Your task to perform on an android device: change the clock display to show seconds Image 0: 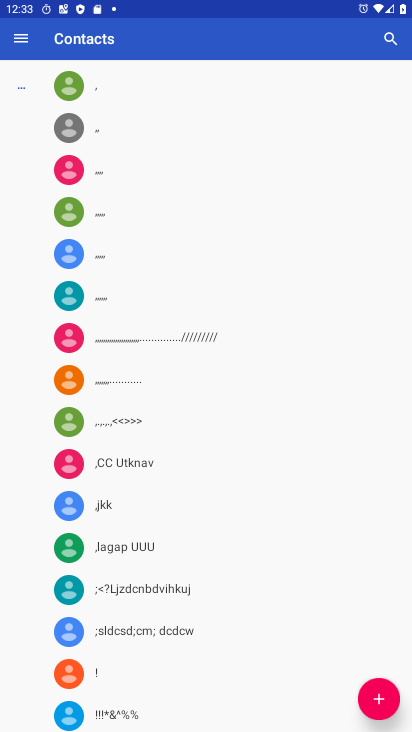
Step 0: press home button
Your task to perform on an android device: change the clock display to show seconds Image 1: 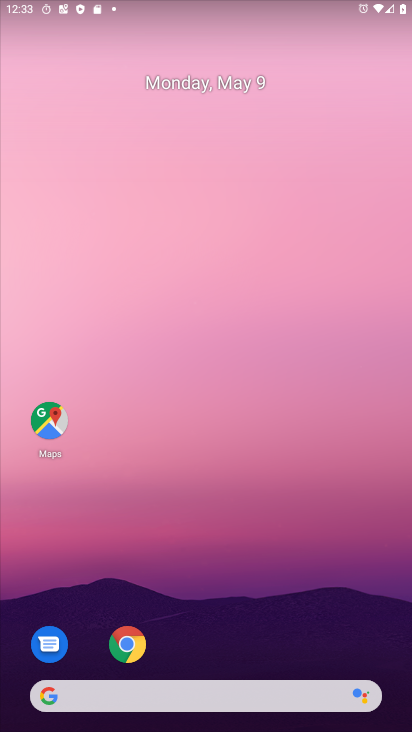
Step 1: click (79, 88)
Your task to perform on an android device: change the clock display to show seconds Image 2: 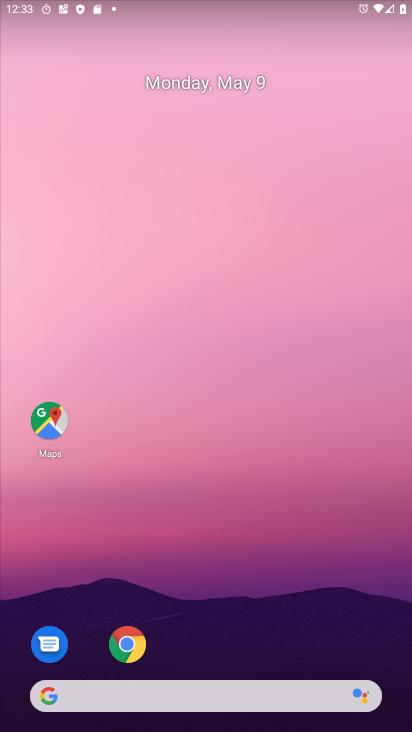
Step 2: drag from (264, 571) to (186, 187)
Your task to perform on an android device: change the clock display to show seconds Image 3: 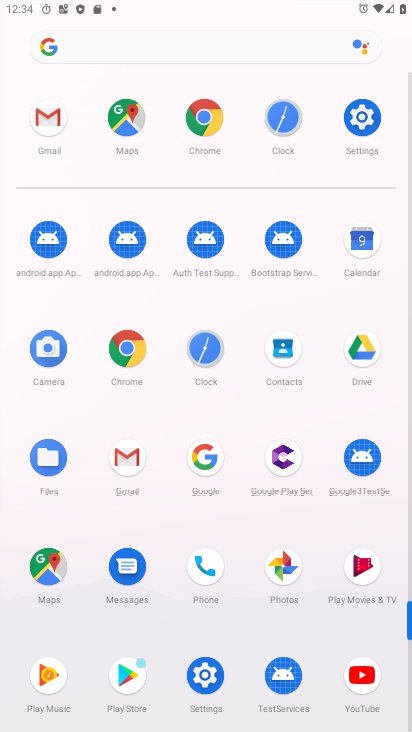
Step 3: click (282, 108)
Your task to perform on an android device: change the clock display to show seconds Image 4: 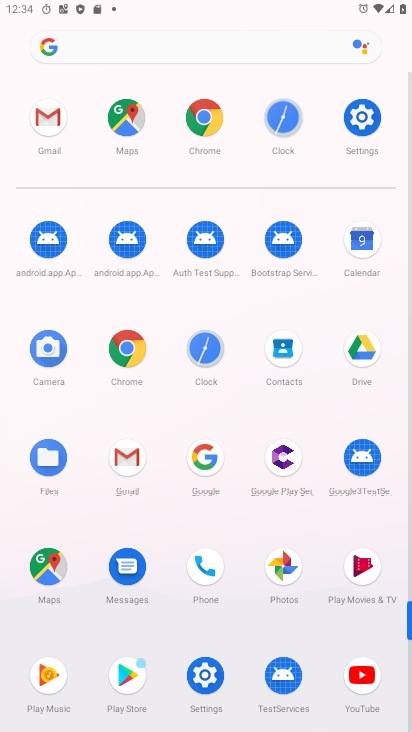
Step 4: click (281, 110)
Your task to perform on an android device: change the clock display to show seconds Image 5: 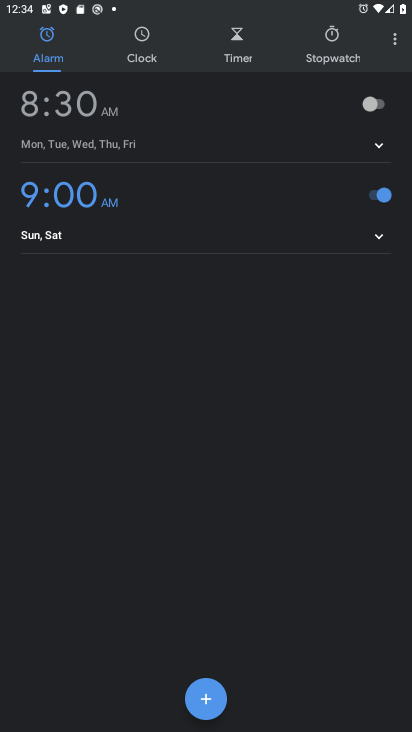
Step 5: click (388, 44)
Your task to perform on an android device: change the clock display to show seconds Image 6: 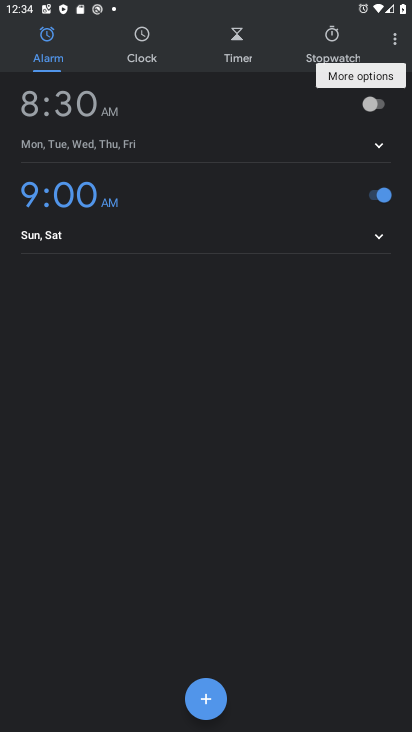
Step 6: click (395, 48)
Your task to perform on an android device: change the clock display to show seconds Image 7: 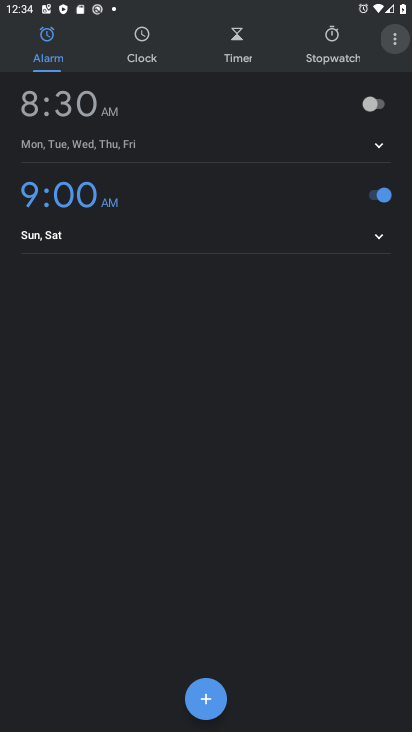
Step 7: click (395, 48)
Your task to perform on an android device: change the clock display to show seconds Image 8: 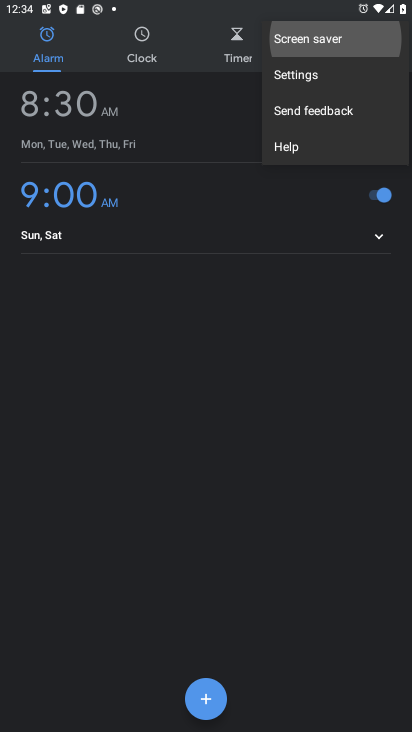
Step 8: click (395, 48)
Your task to perform on an android device: change the clock display to show seconds Image 9: 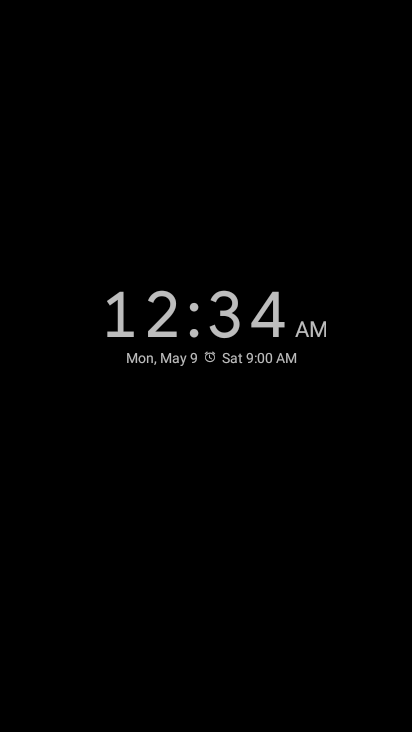
Step 9: press back button
Your task to perform on an android device: change the clock display to show seconds Image 10: 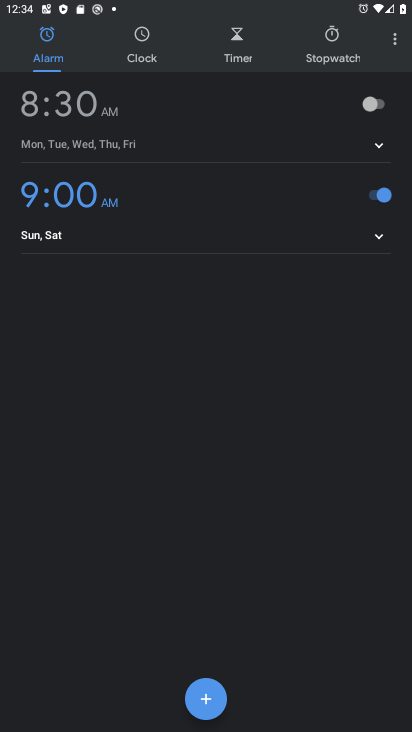
Step 10: click (393, 46)
Your task to perform on an android device: change the clock display to show seconds Image 11: 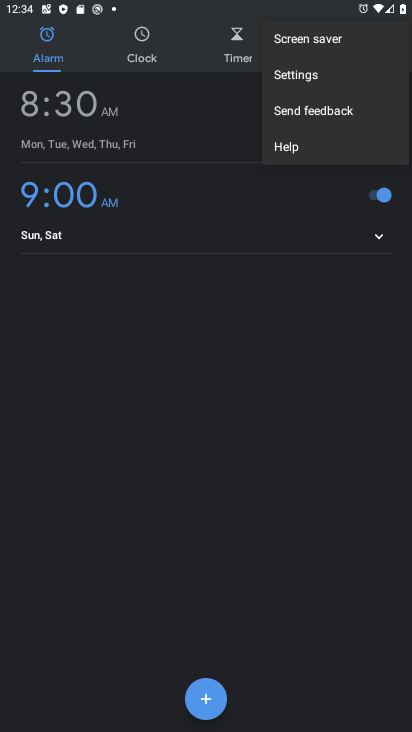
Step 11: click (294, 83)
Your task to perform on an android device: change the clock display to show seconds Image 12: 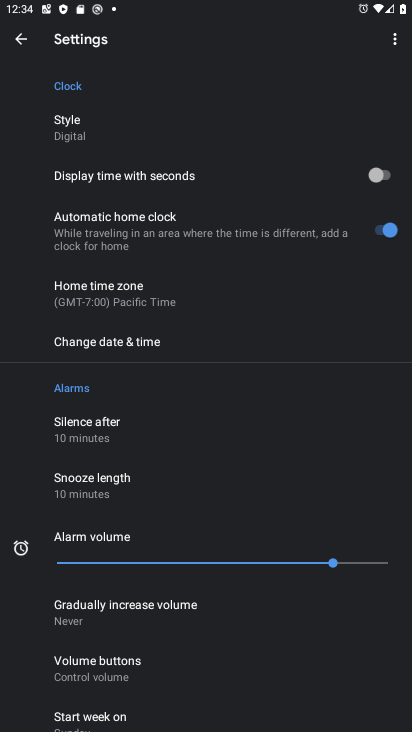
Step 12: click (372, 173)
Your task to perform on an android device: change the clock display to show seconds Image 13: 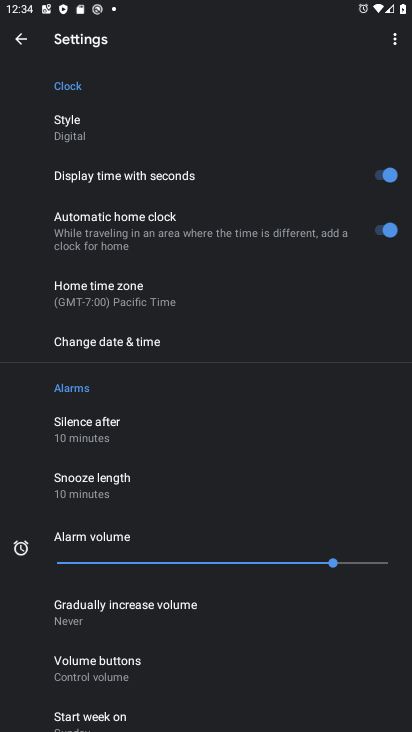
Step 13: task complete